Your task to perform on an android device: change keyboard looks Image 0: 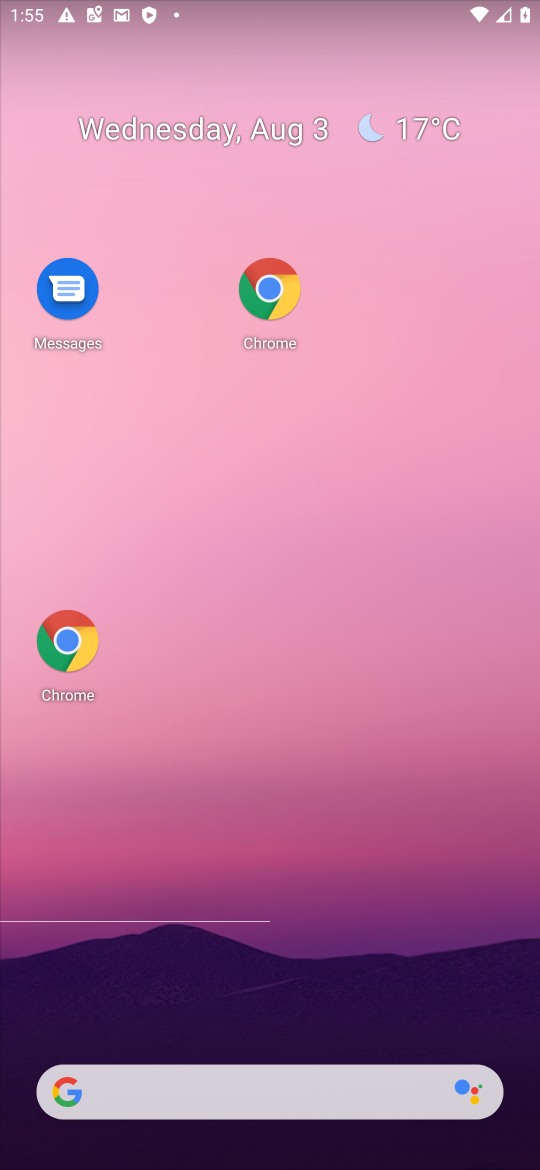
Step 0: drag from (308, 1038) to (290, 254)
Your task to perform on an android device: change keyboard looks Image 1: 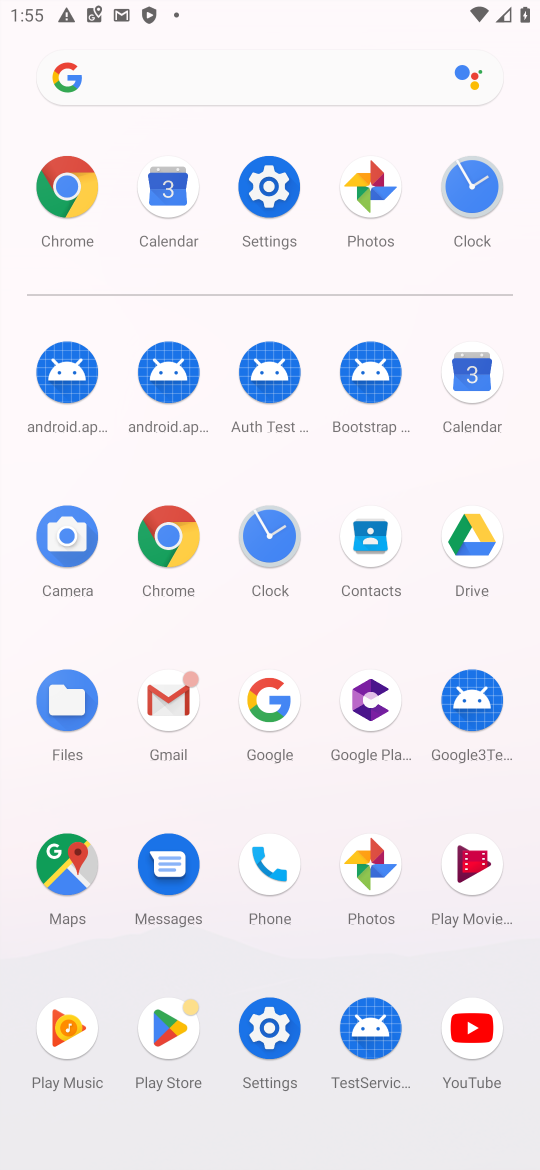
Step 1: click (288, 249)
Your task to perform on an android device: change keyboard looks Image 2: 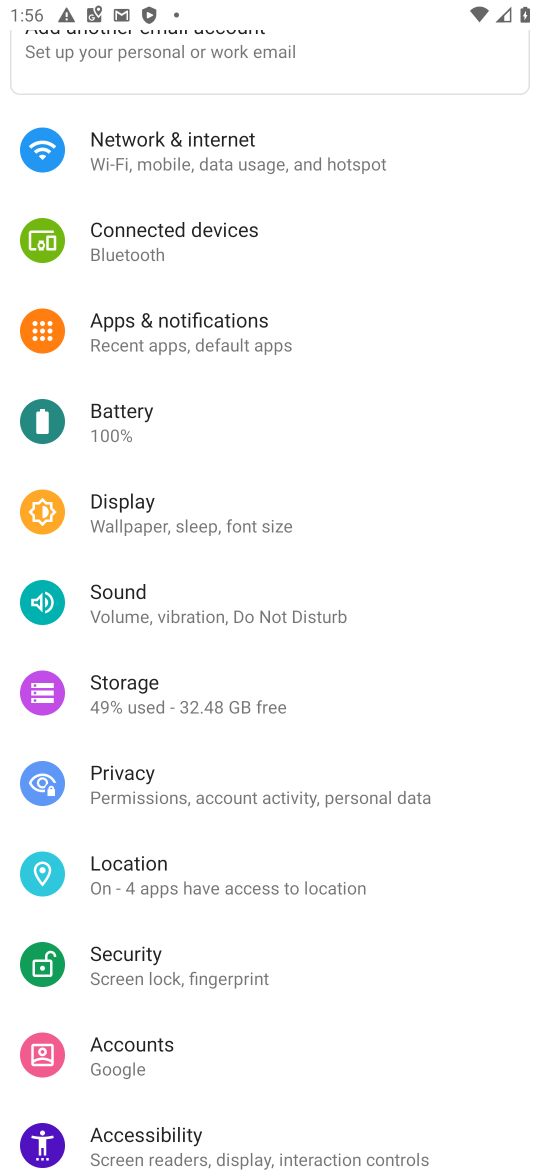
Step 2: drag from (305, 1023) to (159, 262)
Your task to perform on an android device: change keyboard looks Image 3: 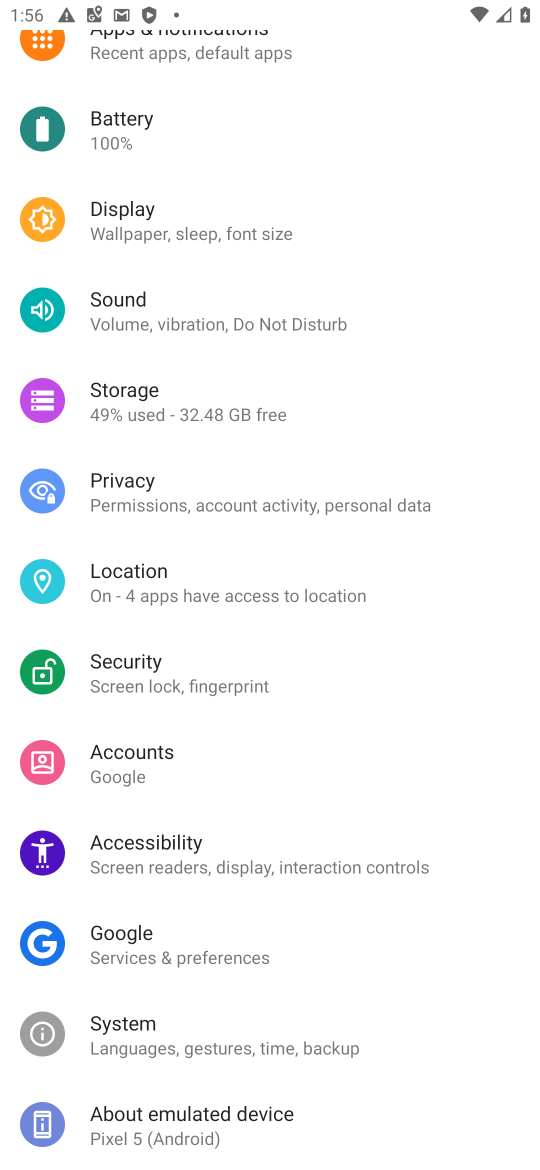
Step 3: click (172, 1035)
Your task to perform on an android device: change keyboard looks Image 4: 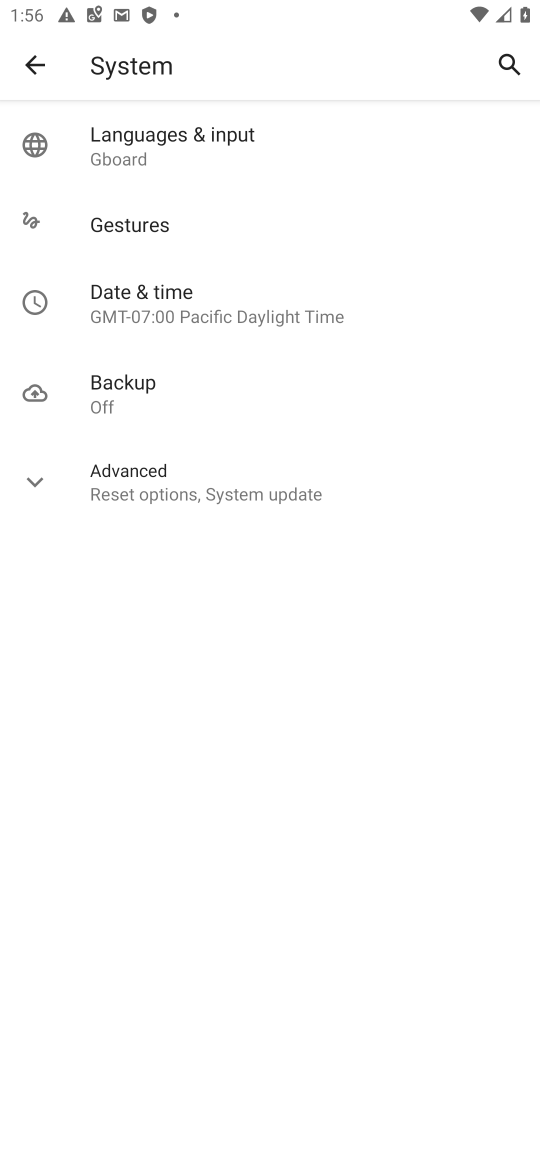
Step 4: click (167, 130)
Your task to perform on an android device: change keyboard looks Image 5: 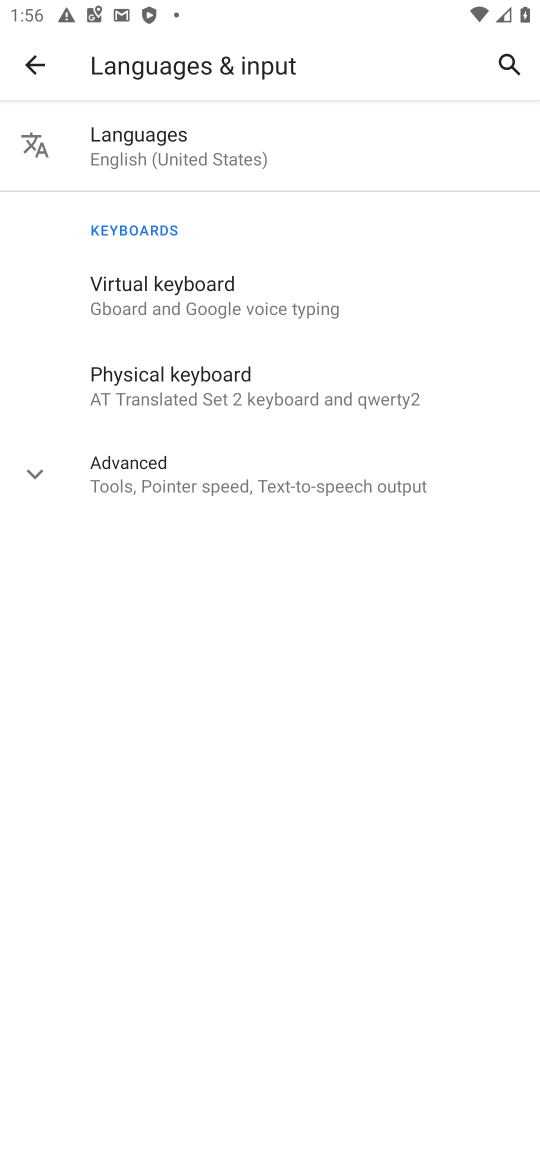
Step 5: click (210, 279)
Your task to perform on an android device: change keyboard looks Image 6: 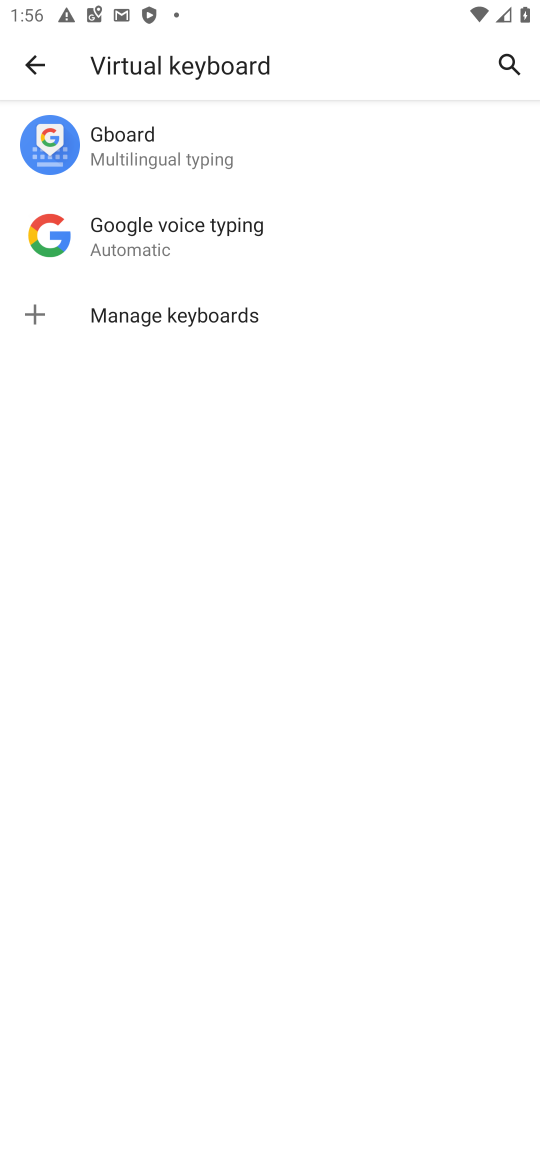
Step 6: click (203, 155)
Your task to perform on an android device: change keyboard looks Image 7: 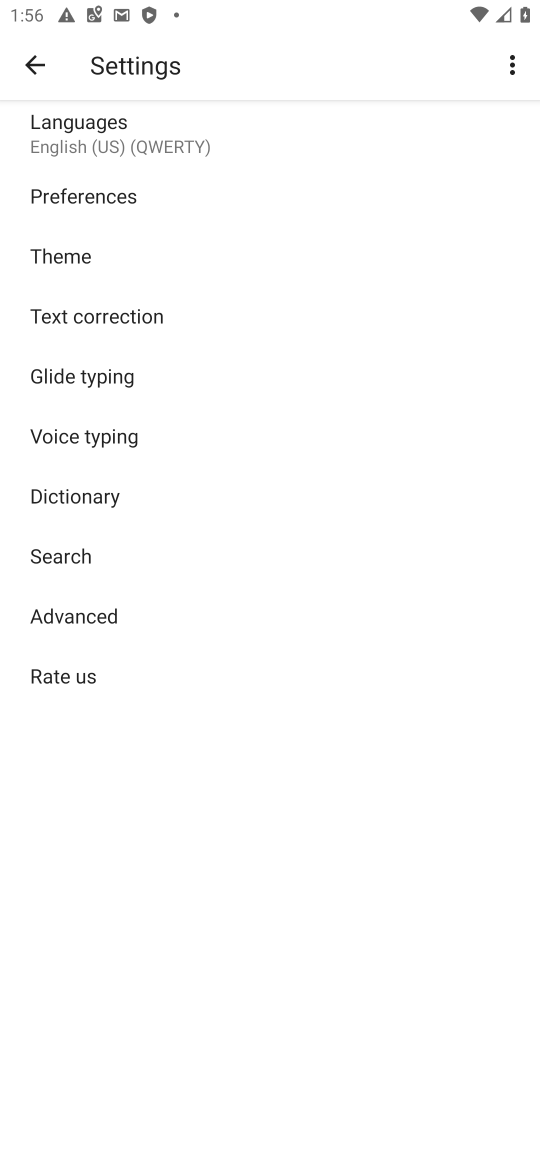
Step 7: click (98, 263)
Your task to perform on an android device: change keyboard looks Image 8: 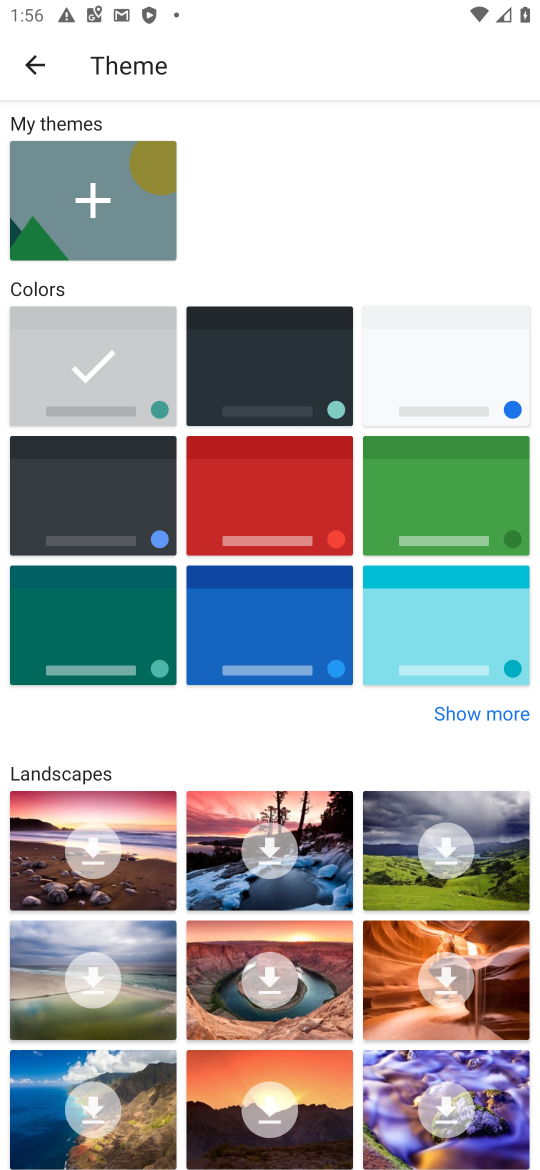
Step 8: click (193, 379)
Your task to perform on an android device: change keyboard looks Image 9: 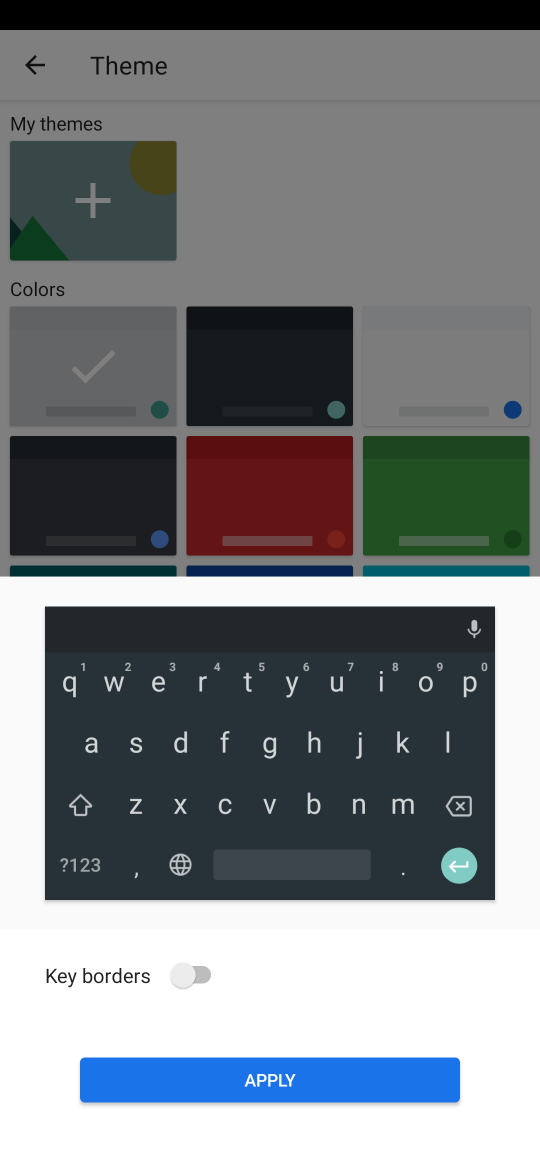
Step 9: task complete